Your task to perform on an android device: Open Reddit.com Image 0: 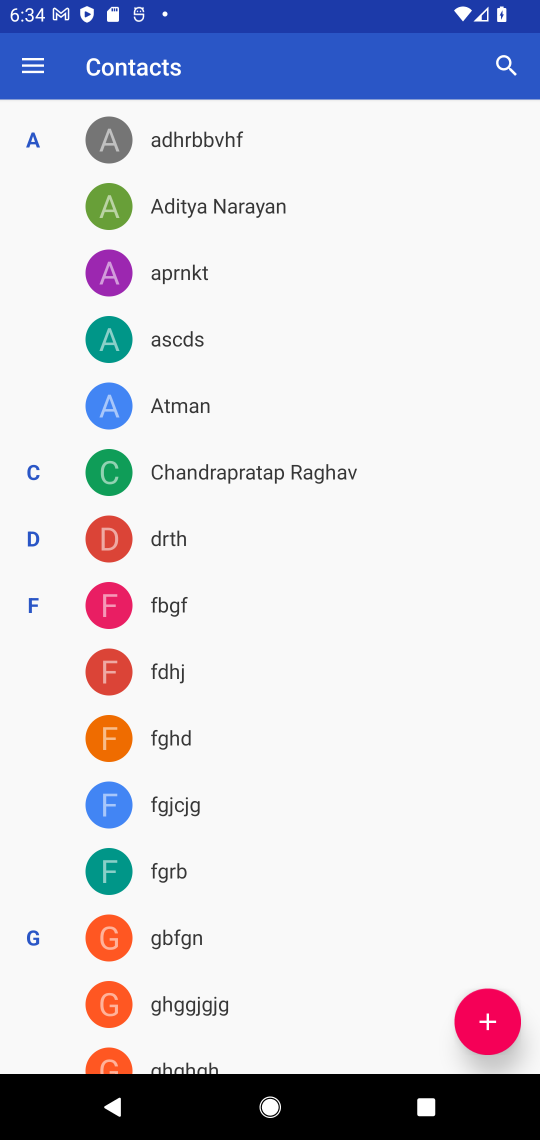
Step 0: press home button
Your task to perform on an android device: Open Reddit.com Image 1: 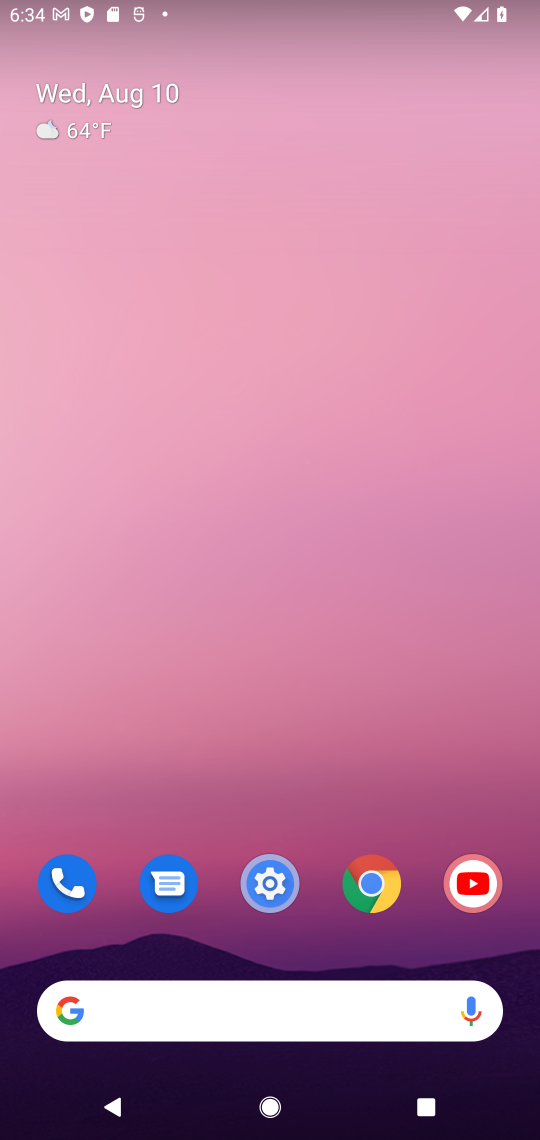
Step 1: click (354, 879)
Your task to perform on an android device: Open Reddit.com Image 2: 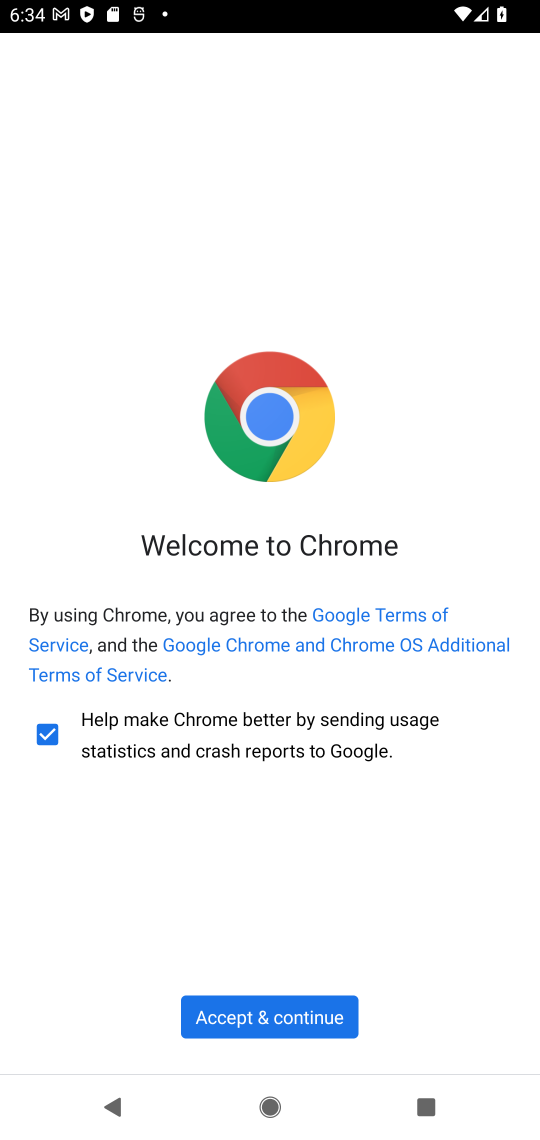
Step 2: click (306, 1010)
Your task to perform on an android device: Open Reddit.com Image 3: 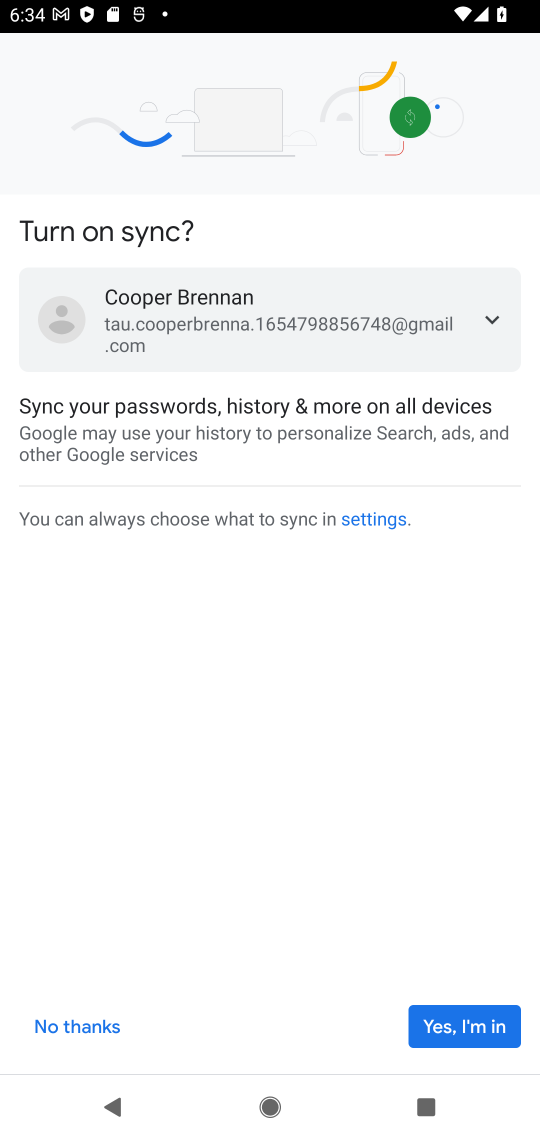
Step 3: click (461, 1024)
Your task to perform on an android device: Open Reddit.com Image 4: 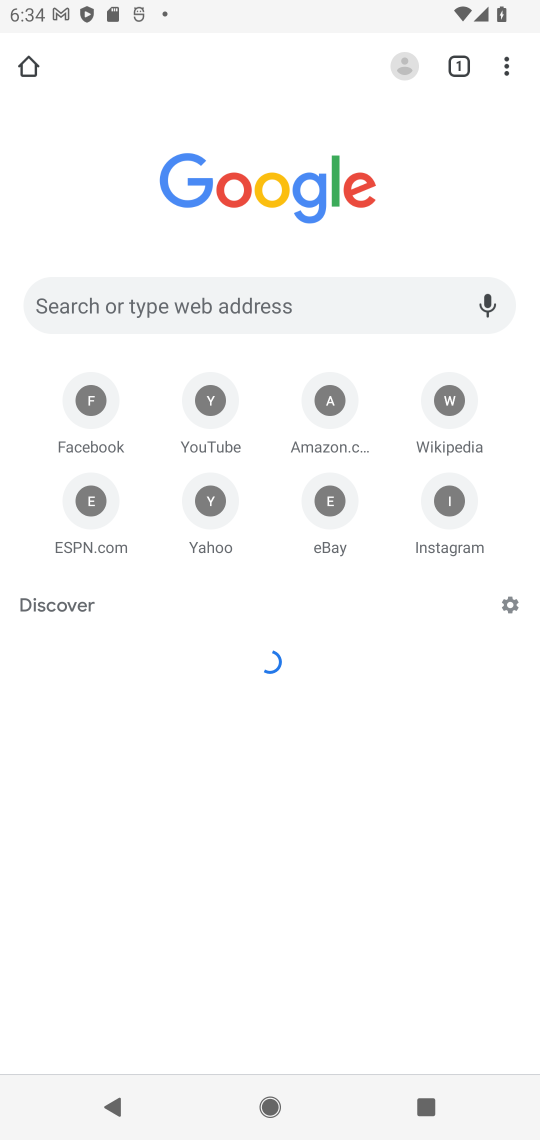
Step 4: click (486, 1036)
Your task to perform on an android device: Open Reddit.com Image 5: 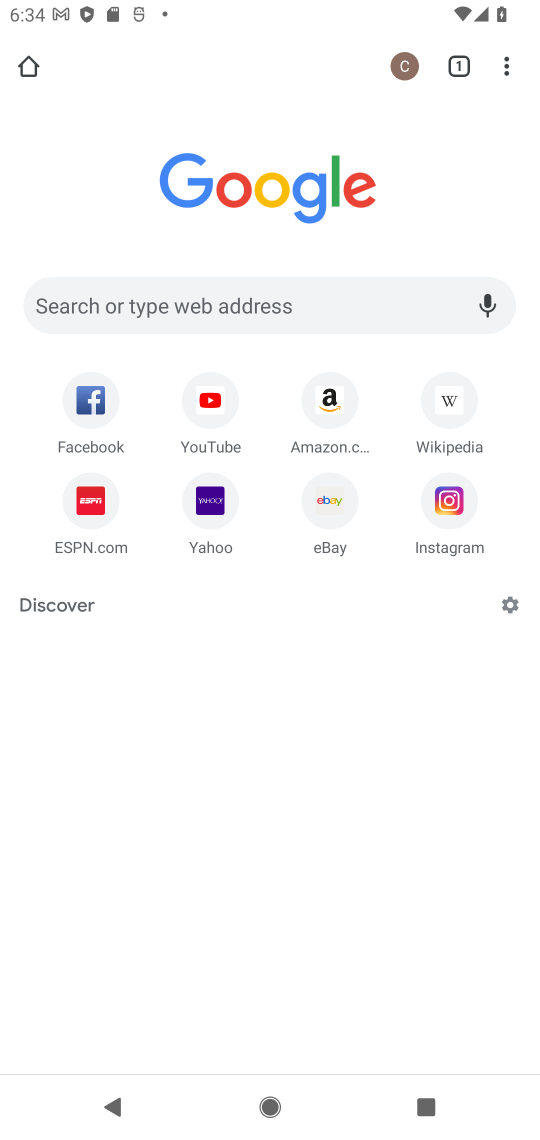
Step 5: click (386, 308)
Your task to perform on an android device: Open Reddit.com Image 6: 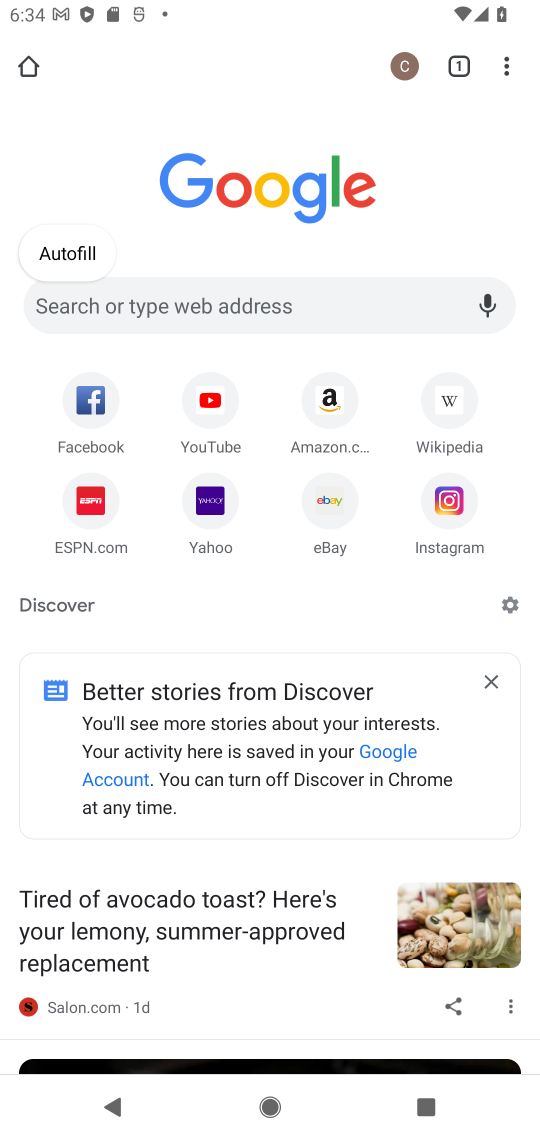
Step 6: type " Reddit.com"
Your task to perform on an android device: Open Reddit.com Image 7: 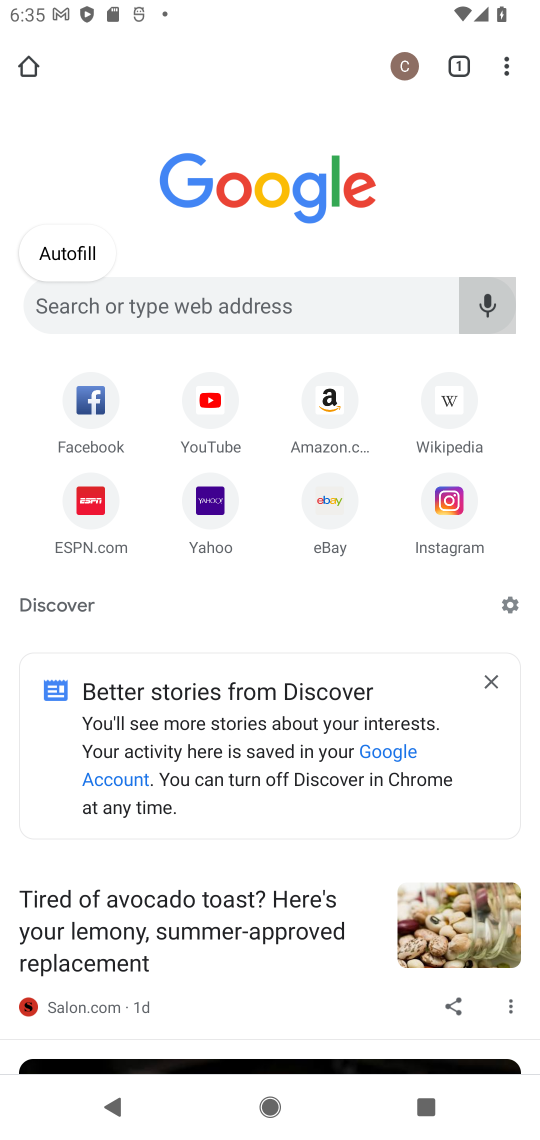
Step 7: click (129, 287)
Your task to perform on an android device: Open Reddit.com Image 8: 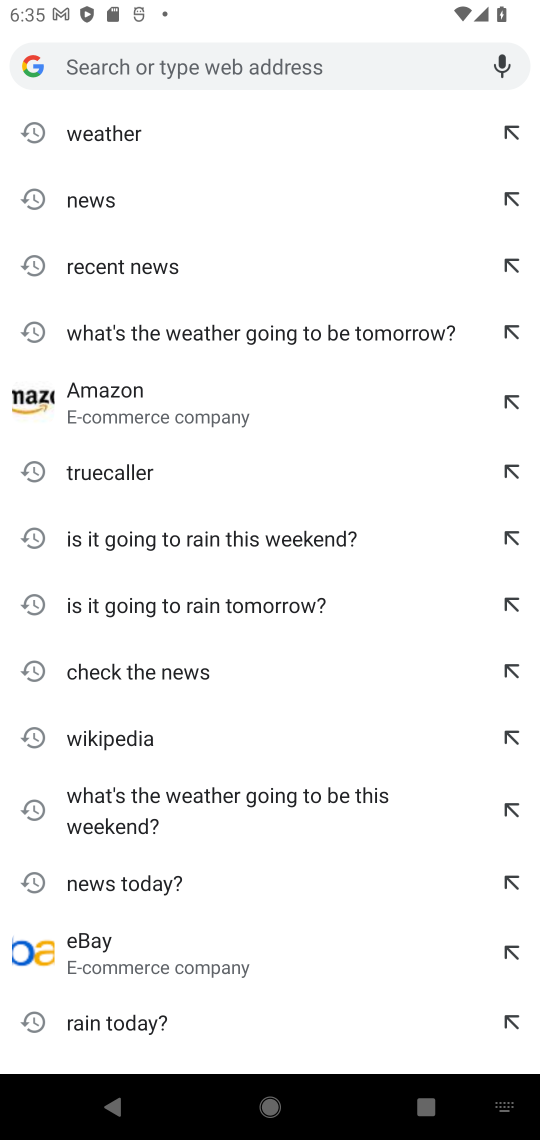
Step 8: type " Reddit.com"
Your task to perform on an android device: Open Reddit.com Image 9: 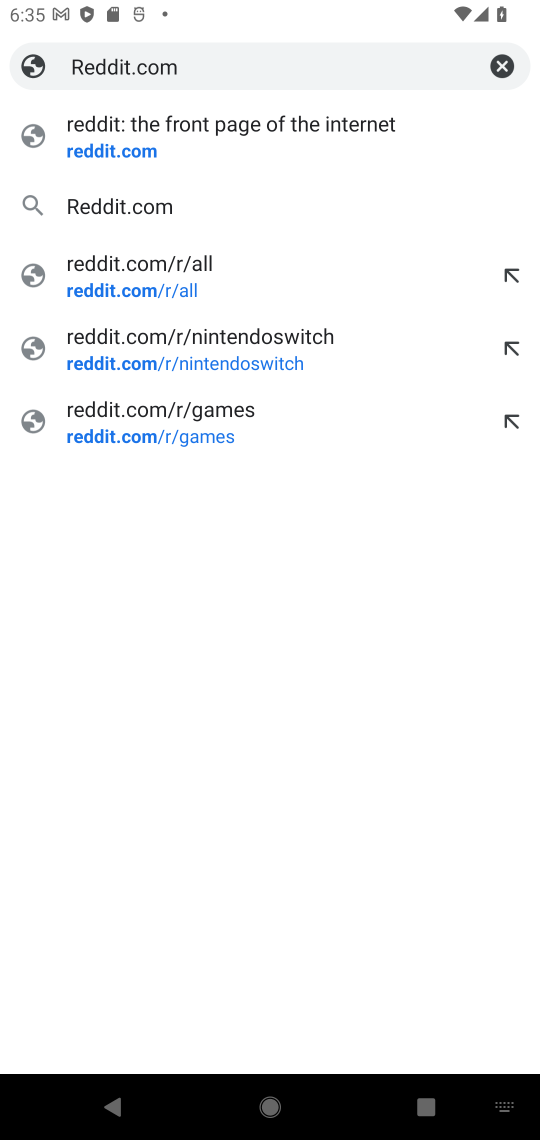
Step 9: click (95, 144)
Your task to perform on an android device: Open Reddit.com Image 10: 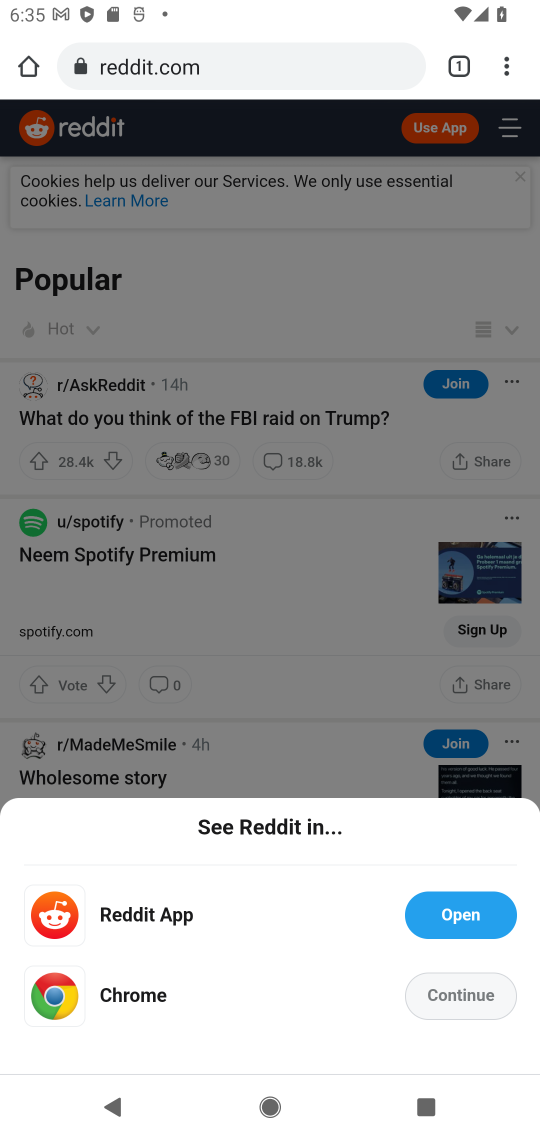
Step 10: task complete